Your task to perform on an android device: Open maps Image 0: 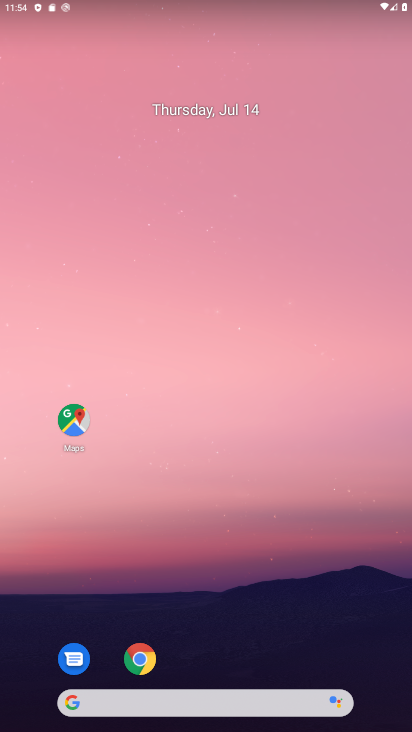
Step 0: click (85, 436)
Your task to perform on an android device: Open maps Image 1: 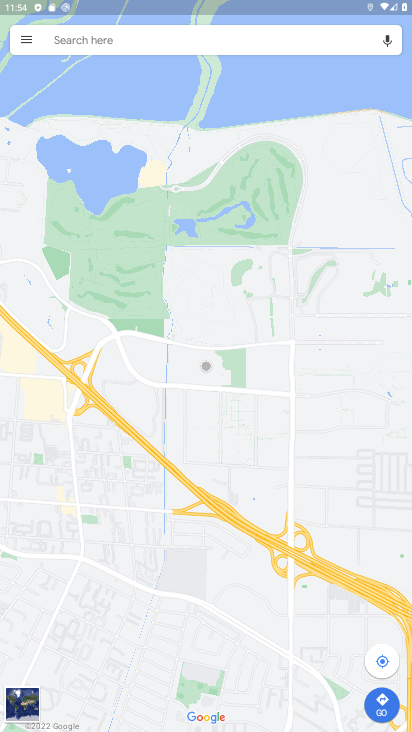
Step 1: task complete